Your task to perform on an android device: turn on priority inbox in the gmail app Image 0: 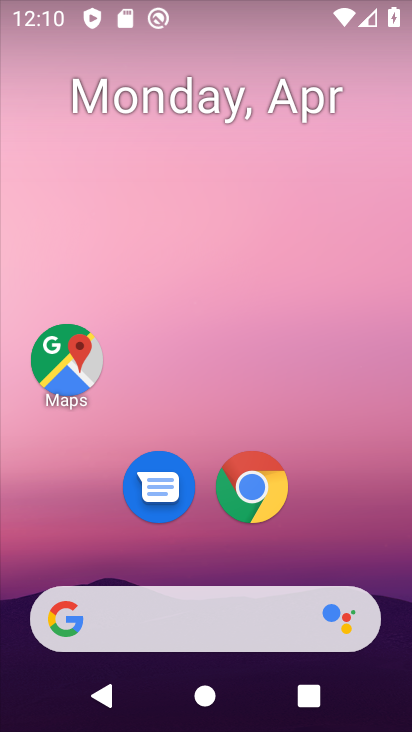
Step 0: drag from (395, 593) to (246, 78)
Your task to perform on an android device: turn on priority inbox in the gmail app Image 1: 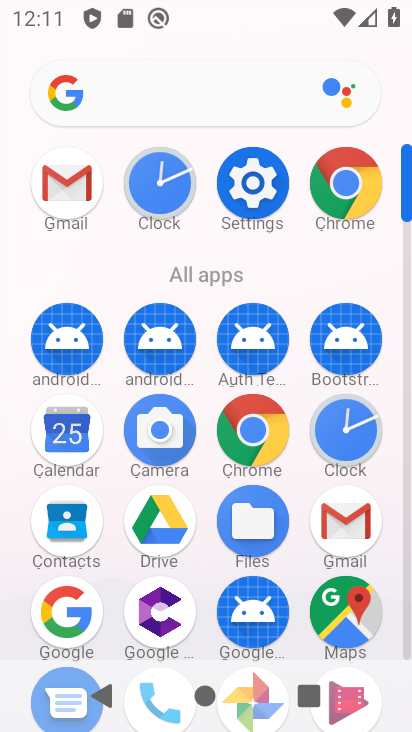
Step 1: click (355, 501)
Your task to perform on an android device: turn on priority inbox in the gmail app Image 2: 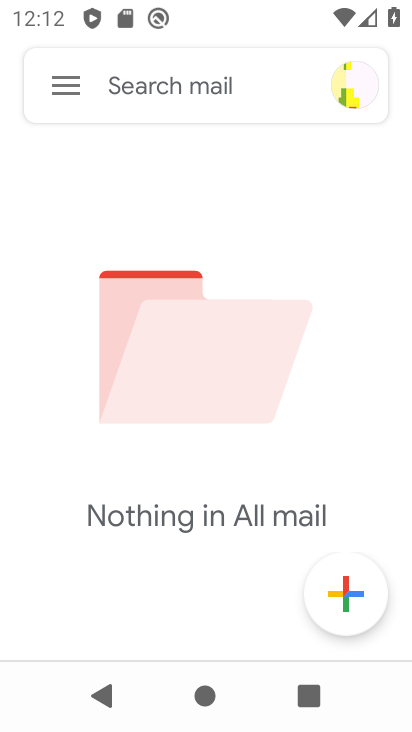
Step 2: click (52, 102)
Your task to perform on an android device: turn on priority inbox in the gmail app Image 3: 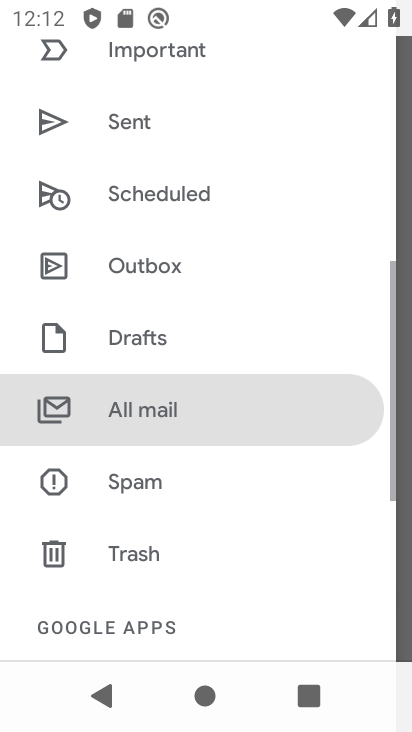
Step 3: drag from (151, 607) to (254, 143)
Your task to perform on an android device: turn on priority inbox in the gmail app Image 4: 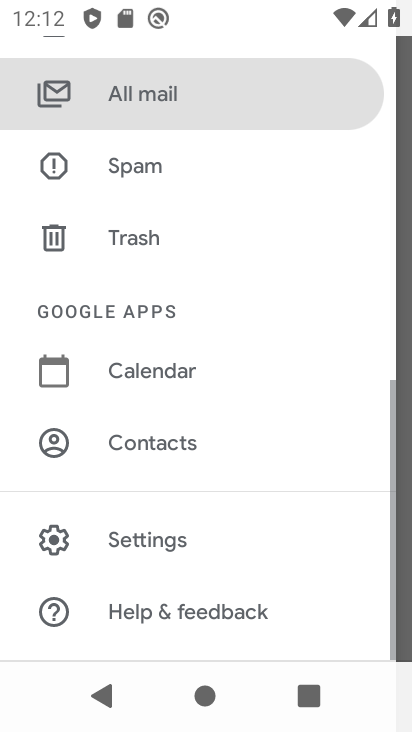
Step 4: click (158, 526)
Your task to perform on an android device: turn on priority inbox in the gmail app Image 5: 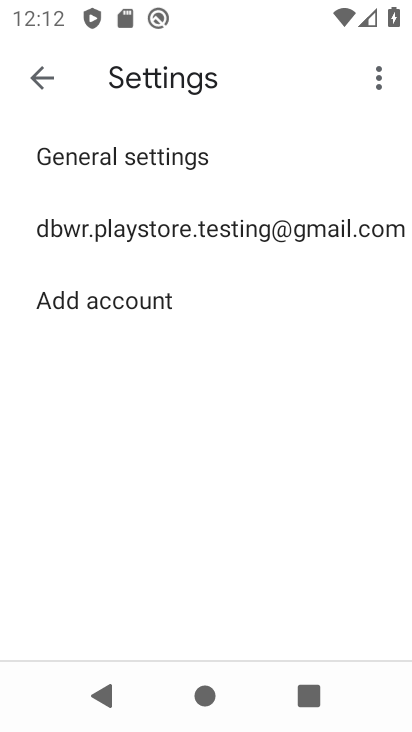
Step 5: click (216, 217)
Your task to perform on an android device: turn on priority inbox in the gmail app Image 6: 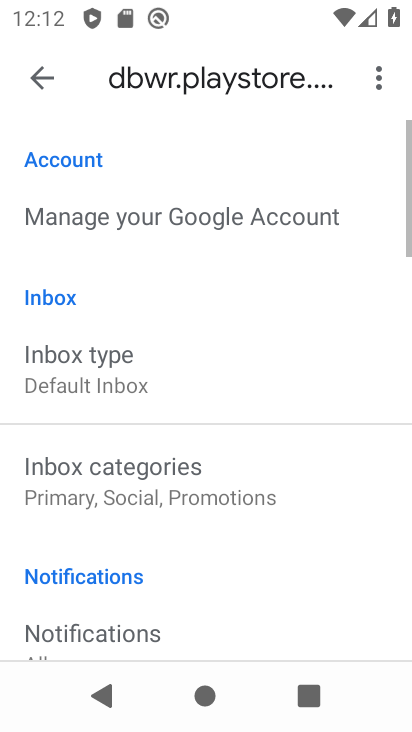
Step 6: drag from (197, 631) to (287, 191)
Your task to perform on an android device: turn on priority inbox in the gmail app Image 7: 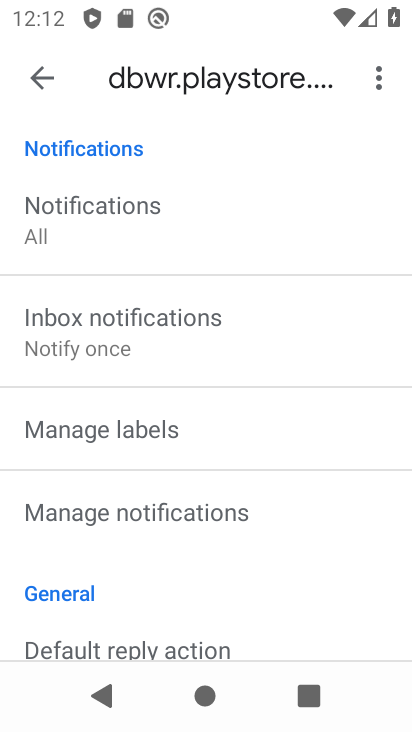
Step 7: drag from (237, 202) to (195, 636)
Your task to perform on an android device: turn on priority inbox in the gmail app Image 8: 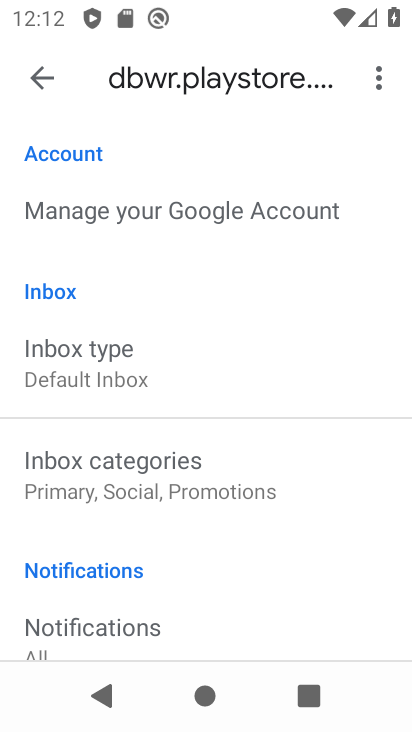
Step 8: click (160, 364)
Your task to perform on an android device: turn on priority inbox in the gmail app Image 9: 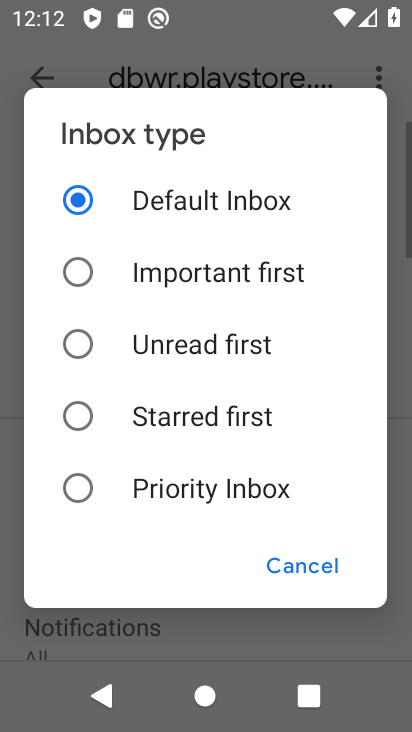
Step 9: click (61, 500)
Your task to perform on an android device: turn on priority inbox in the gmail app Image 10: 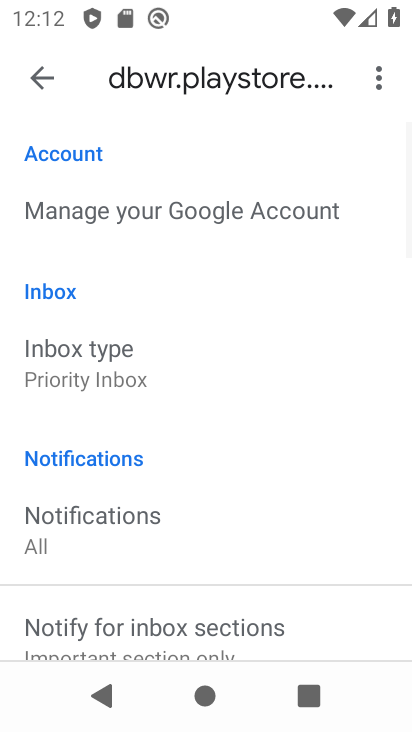
Step 10: task complete